Your task to perform on an android device: Go to accessibility settings Image 0: 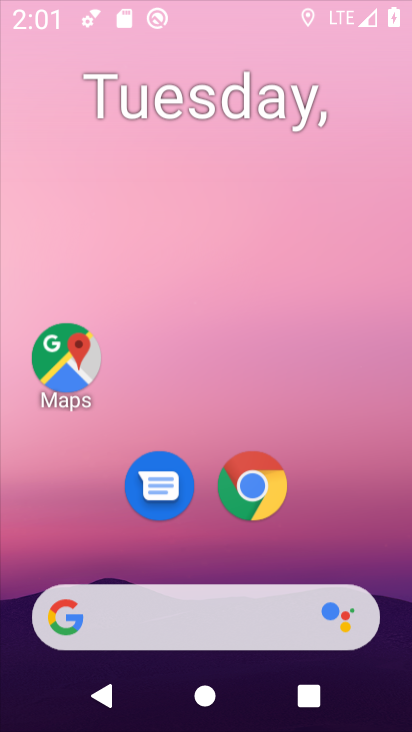
Step 0: press home button
Your task to perform on an android device: Go to accessibility settings Image 1: 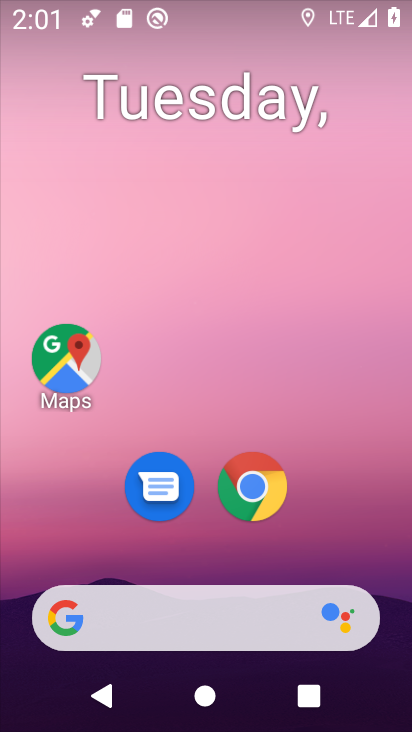
Step 1: drag from (377, 495) to (360, 53)
Your task to perform on an android device: Go to accessibility settings Image 2: 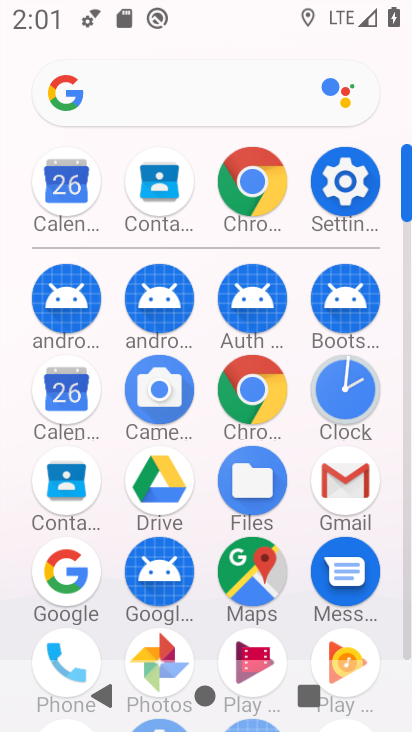
Step 2: click (337, 189)
Your task to perform on an android device: Go to accessibility settings Image 3: 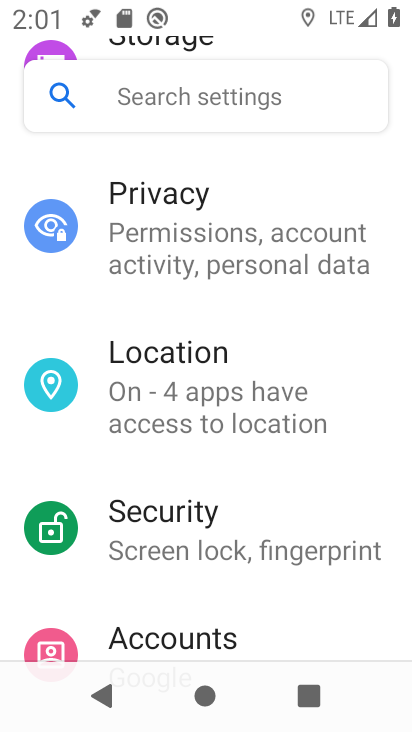
Step 3: drag from (372, 496) to (366, 376)
Your task to perform on an android device: Go to accessibility settings Image 4: 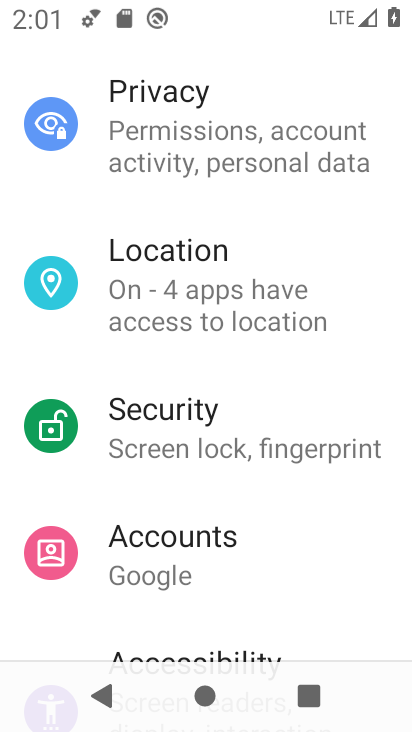
Step 4: drag from (357, 505) to (364, 402)
Your task to perform on an android device: Go to accessibility settings Image 5: 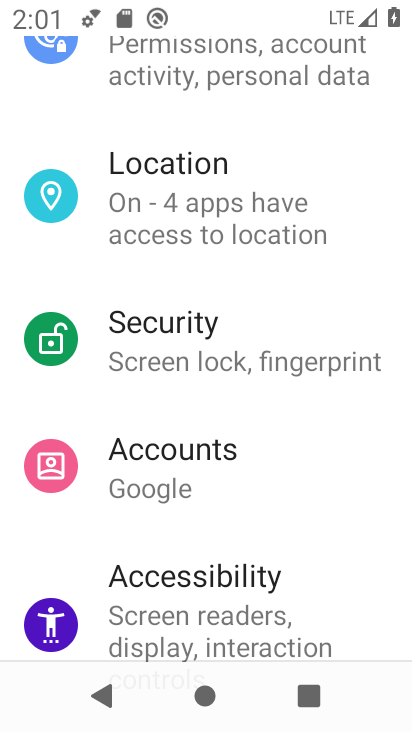
Step 5: drag from (346, 516) to (332, 313)
Your task to perform on an android device: Go to accessibility settings Image 6: 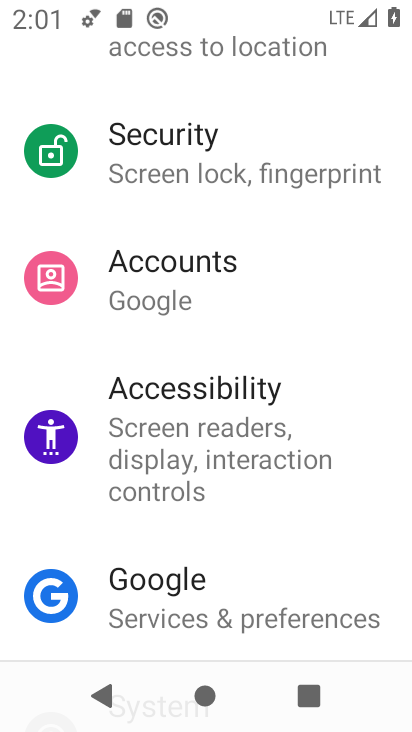
Step 6: drag from (322, 518) to (322, 415)
Your task to perform on an android device: Go to accessibility settings Image 7: 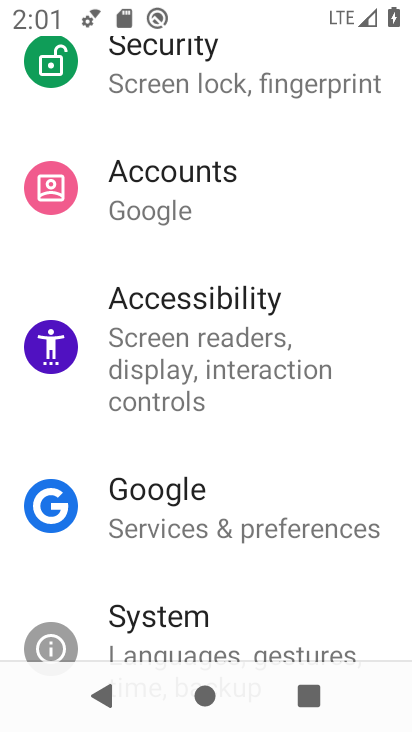
Step 7: click (282, 344)
Your task to perform on an android device: Go to accessibility settings Image 8: 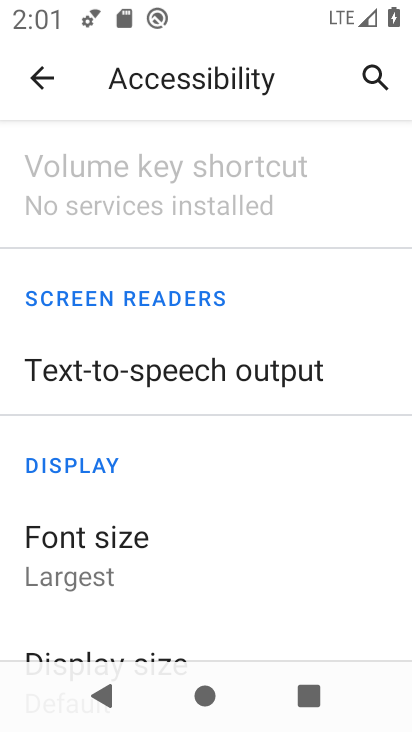
Step 8: task complete